Your task to perform on an android device: see creations saved in the google photos Image 0: 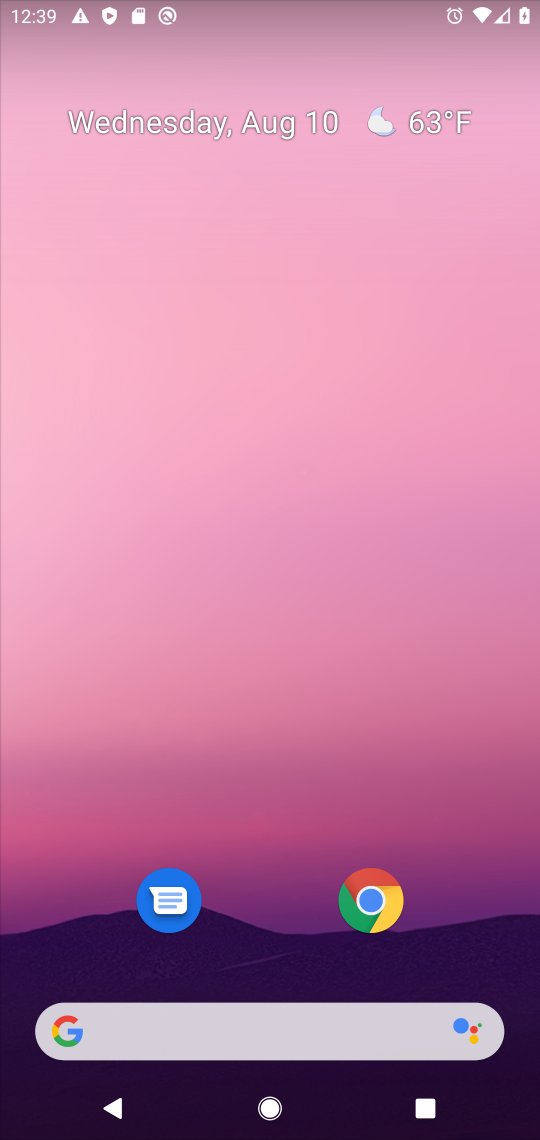
Step 0: drag from (273, 901) to (297, 0)
Your task to perform on an android device: see creations saved in the google photos Image 1: 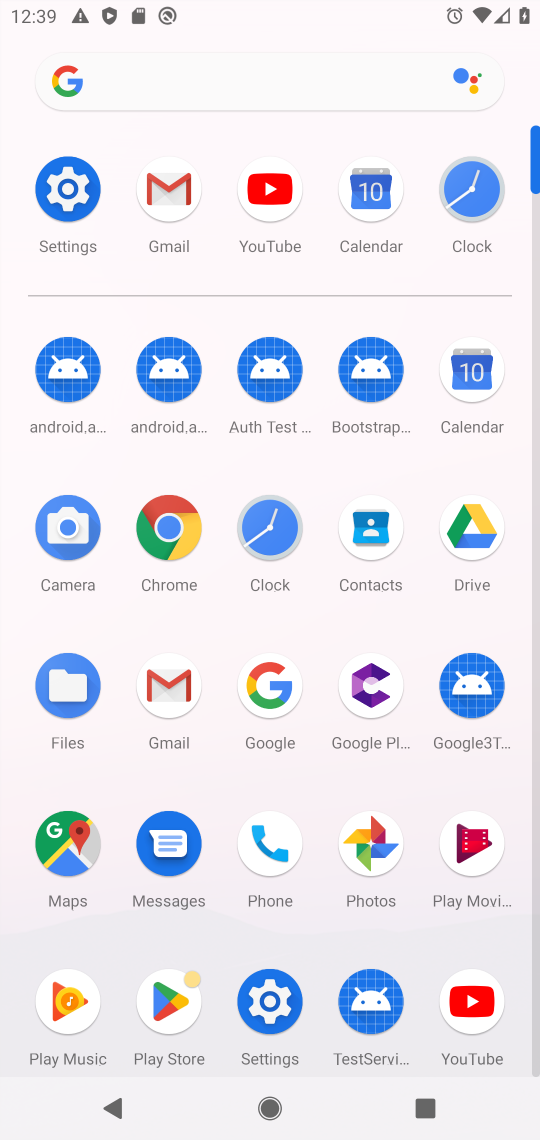
Step 1: click (374, 849)
Your task to perform on an android device: see creations saved in the google photos Image 2: 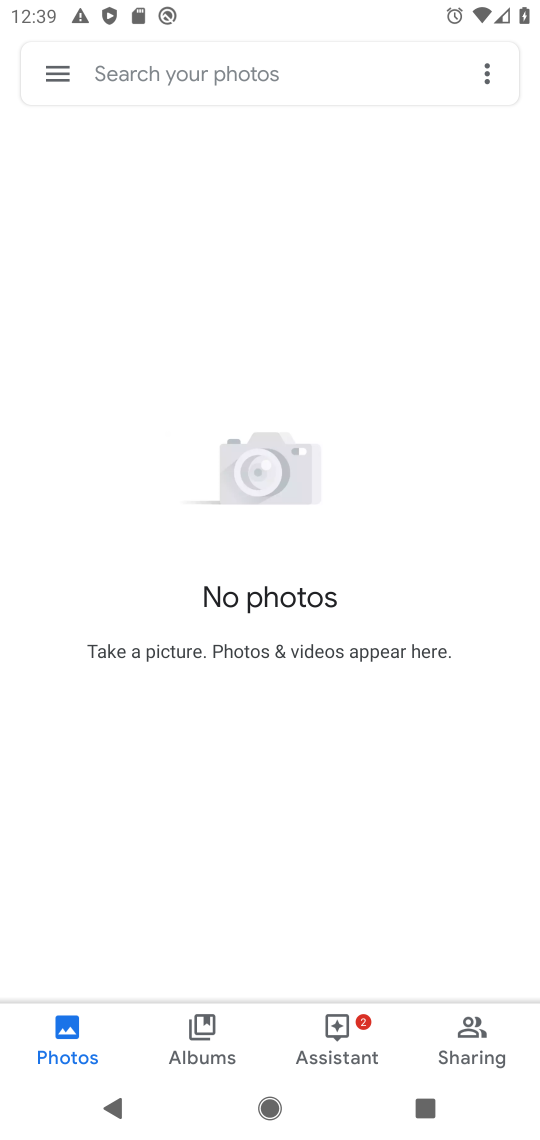
Step 2: click (322, 61)
Your task to perform on an android device: see creations saved in the google photos Image 3: 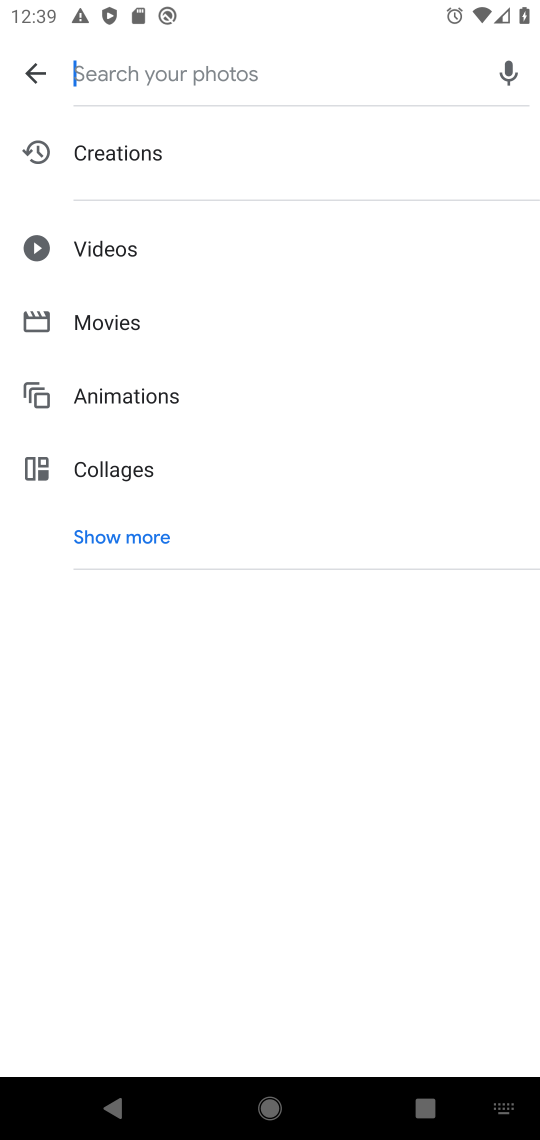
Step 3: click (152, 145)
Your task to perform on an android device: see creations saved in the google photos Image 4: 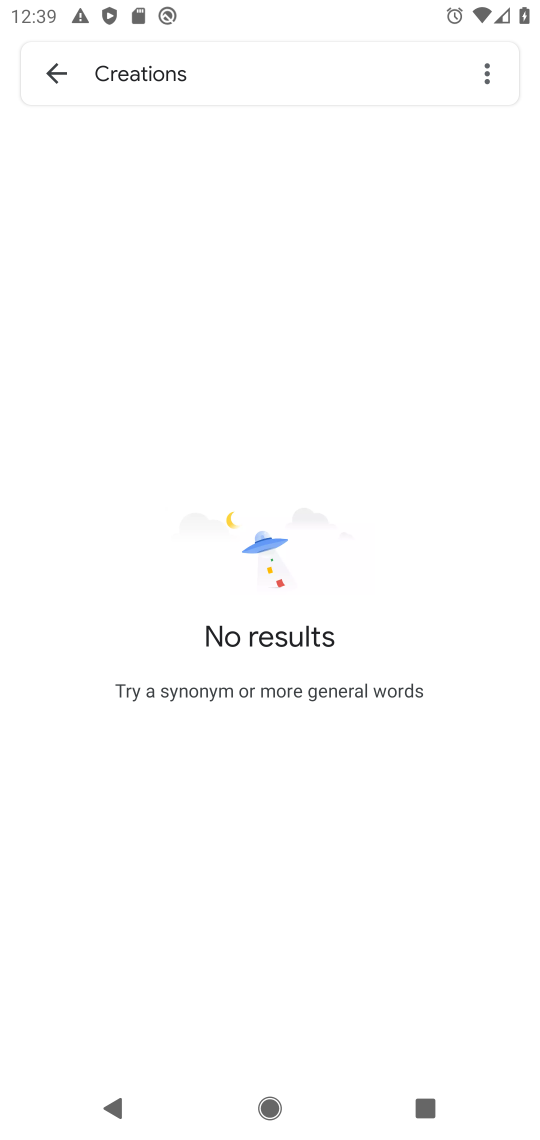
Step 4: task complete